Your task to perform on an android device: stop showing notifications on the lock screen Image 0: 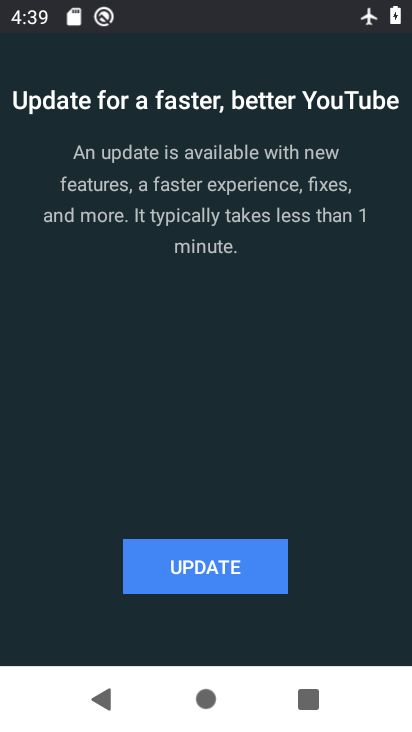
Step 0: press home button
Your task to perform on an android device: stop showing notifications on the lock screen Image 1: 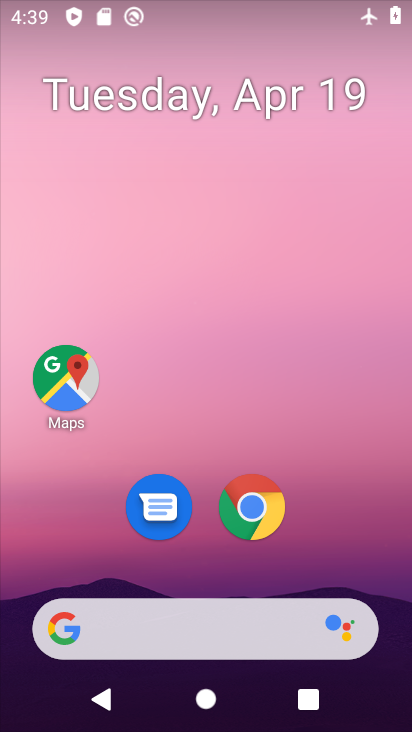
Step 1: drag from (337, 506) to (335, 5)
Your task to perform on an android device: stop showing notifications on the lock screen Image 2: 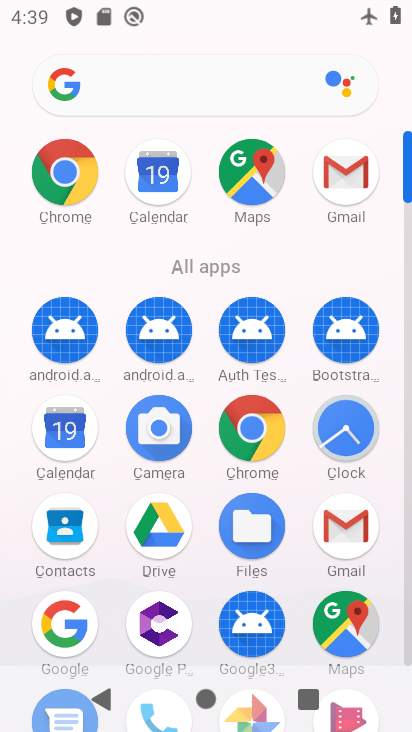
Step 2: drag from (408, 187) to (398, 282)
Your task to perform on an android device: stop showing notifications on the lock screen Image 3: 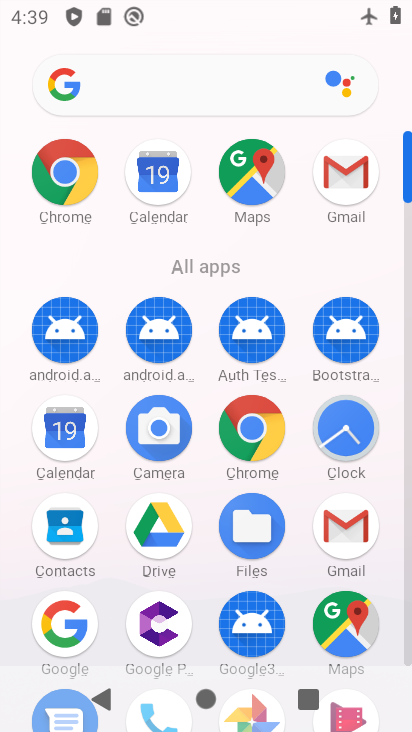
Step 3: drag from (296, 591) to (329, 219)
Your task to perform on an android device: stop showing notifications on the lock screen Image 4: 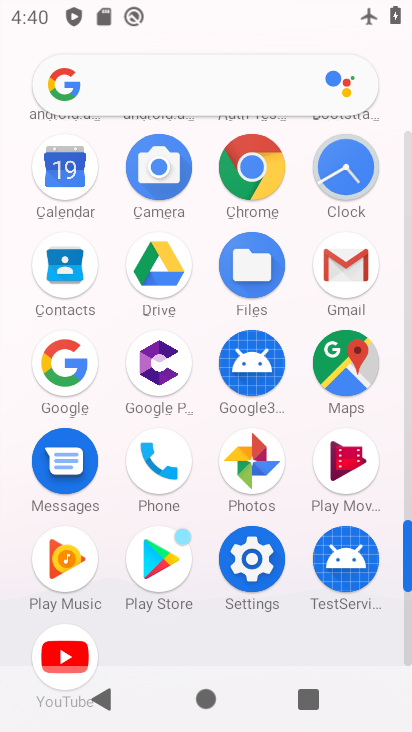
Step 4: click (243, 558)
Your task to perform on an android device: stop showing notifications on the lock screen Image 5: 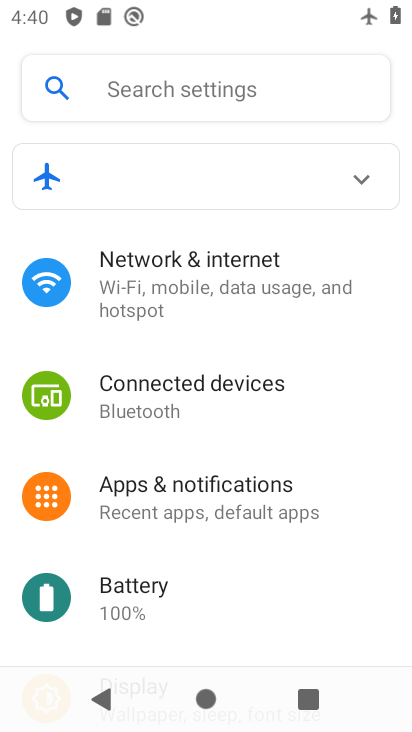
Step 5: click (237, 485)
Your task to perform on an android device: stop showing notifications on the lock screen Image 6: 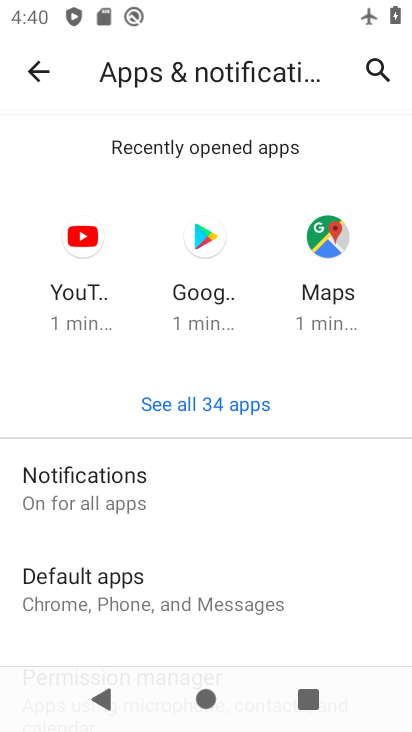
Step 6: drag from (338, 554) to (406, 168)
Your task to perform on an android device: stop showing notifications on the lock screen Image 7: 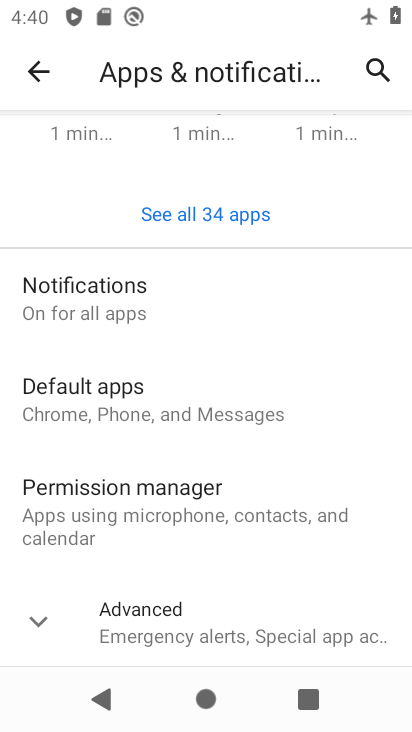
Step 7: click (157, 301)
Your task to perform on an android device: stop showing notifications on the lock screen Image 8: 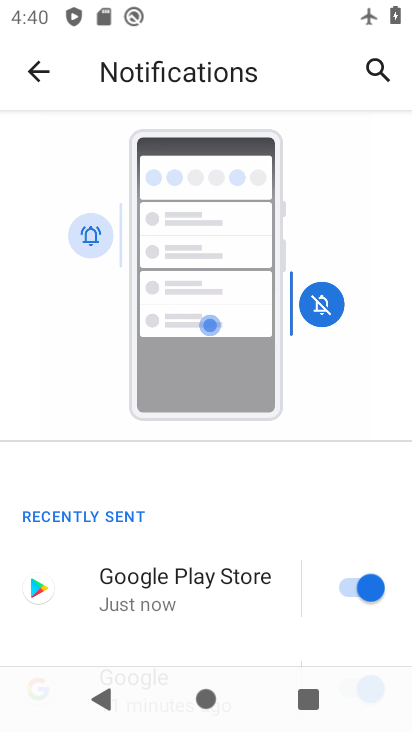
Step 8: drag from (238, 483) to (294, 93)
Your task to perform on an android device: stop showing notifications on the lock screen Image 9: 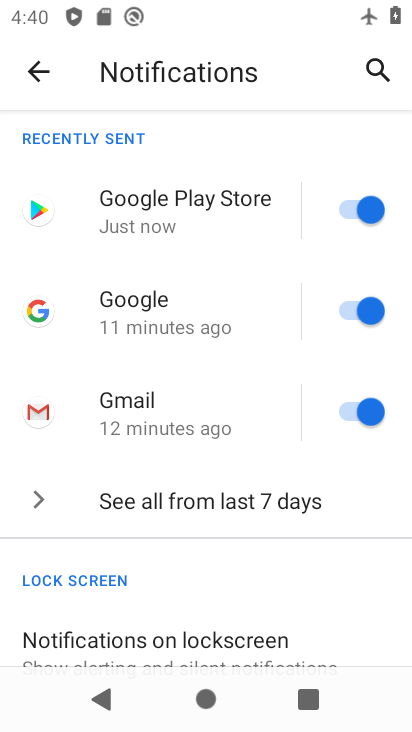
Step 9: drag from (188, 589) to (229, 260)
Your task to perform on an android device: stop showing notifications on the lock screen Image 10: 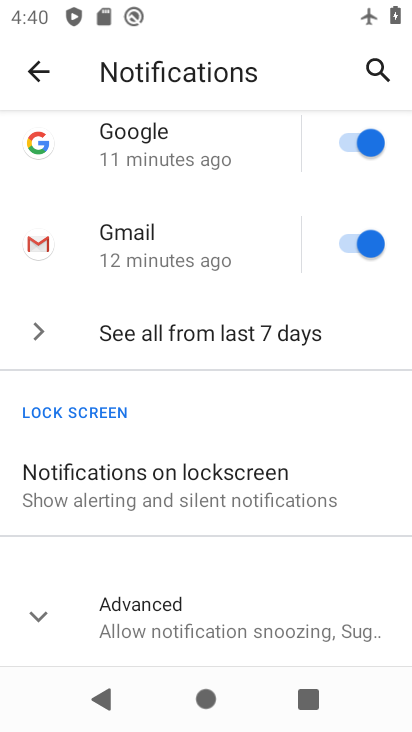
Step 10: click (161, 467)
Your task to perform on an android device: stop showing notifications on the lock screen Image 11: 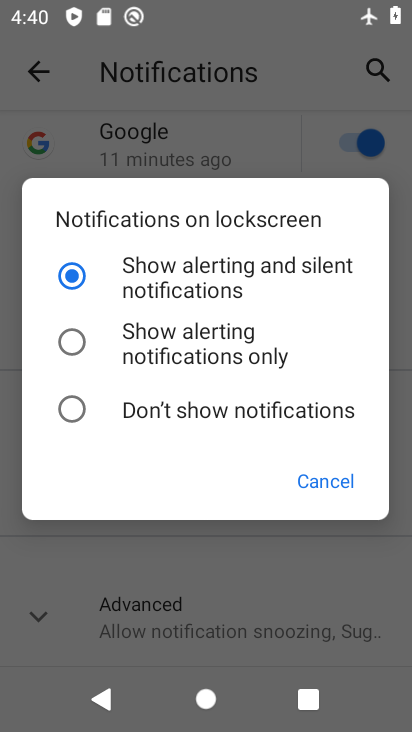
Step 11: click (195, 413)
Your task to perform on an android device: stop showing notifications on the lock screen Image 12: 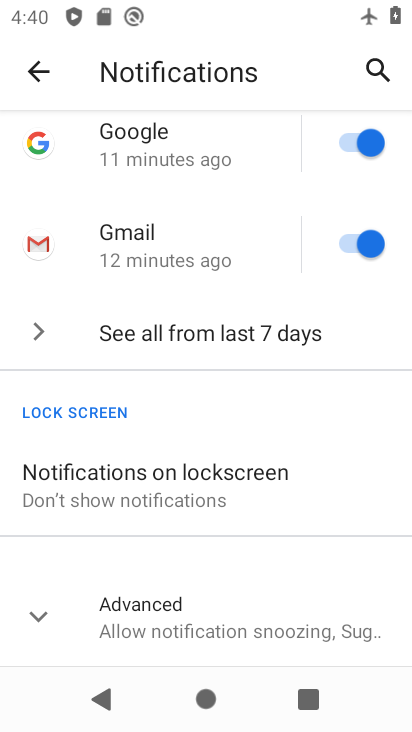
Step 12: task complete